Your task to perform on an android device: turn on the 12-hour format for clock Image 0: 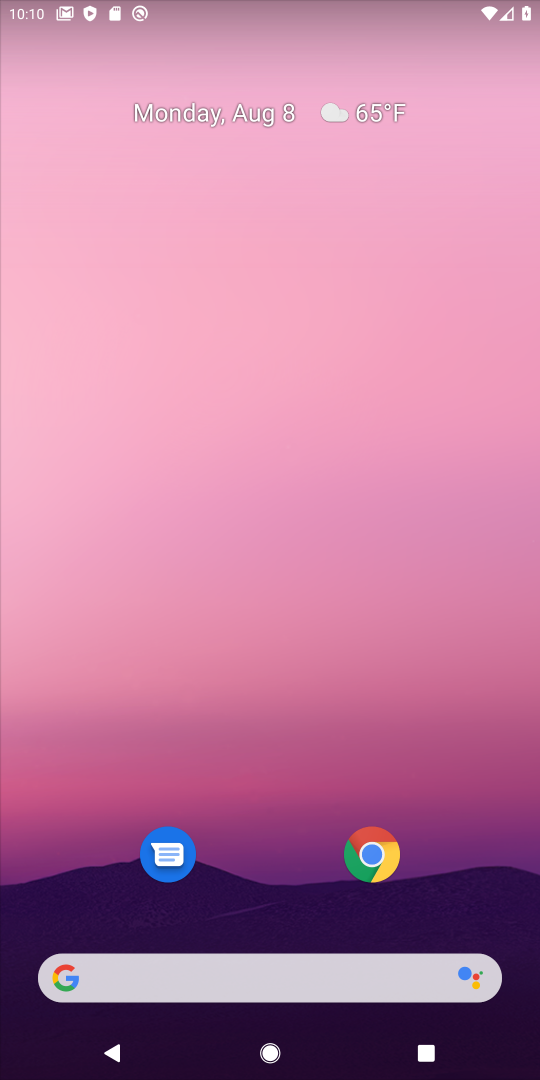
Step 0: drag from (254, 914) to (287, 8)
Your task to perform on an android device: turn on the 12-hour format for clock Image 1: 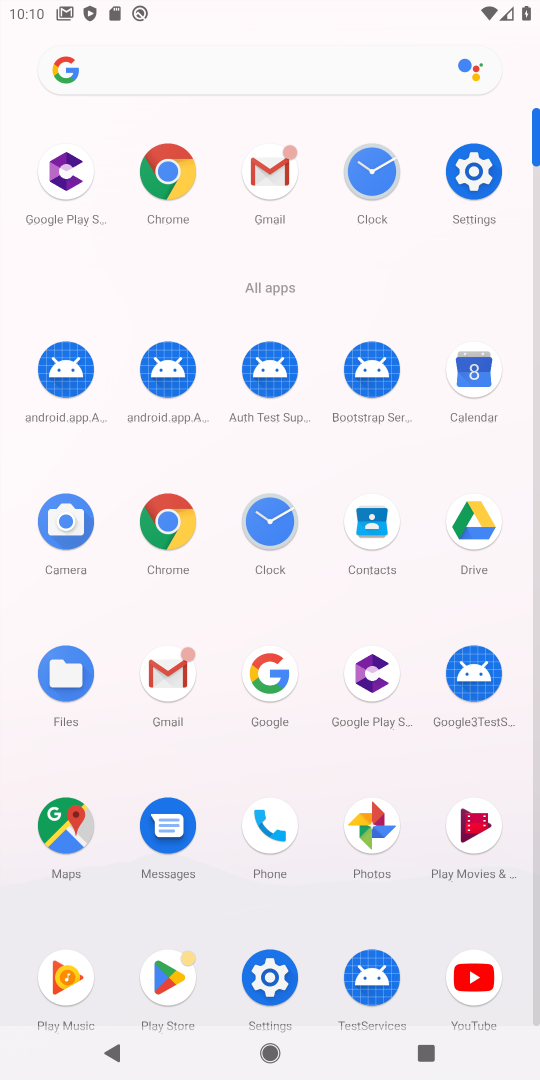
Step 1: click (385, 188)
Your task to perform on an android device: turn on the 12-hour format for clock Image 2: 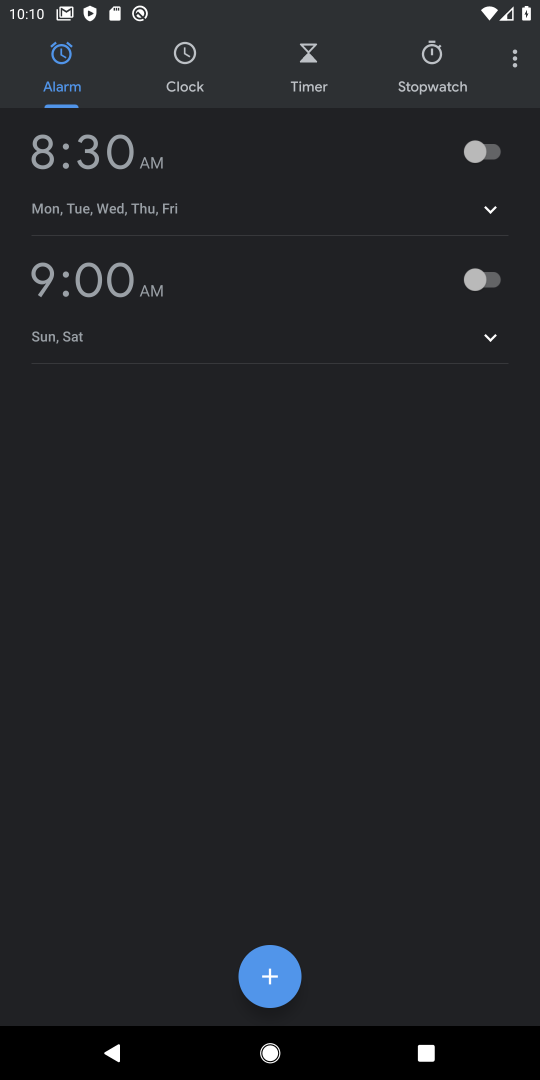
Step 2: click (529, 64)
Your task to perform on an android device: turn on the 12-hour format for clock Image 3: 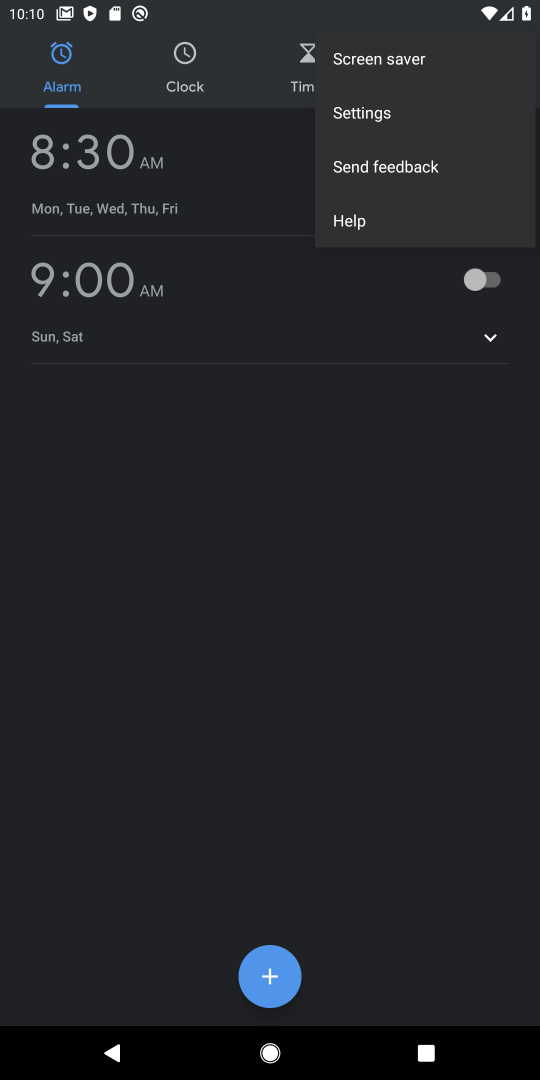
Step 3: click (445, 122)
Your task to perform on an android device: turn on the 12-hour format for clock Image 4: 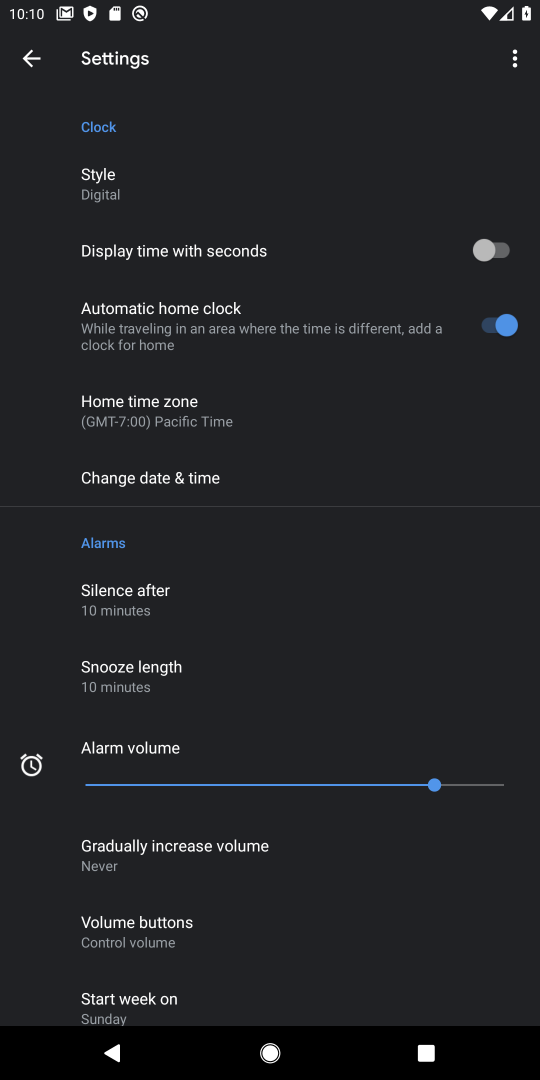
Step 4: task complete